Your task to perform on an android device: Open calendar and show me the second week of next month Image 0: 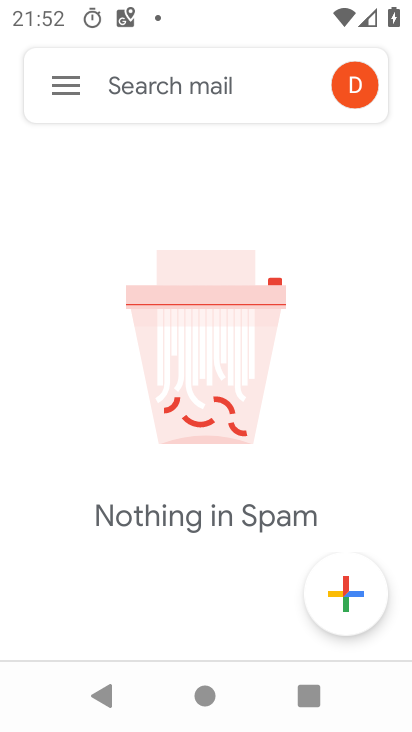
Step 0: press home button
Your task to perform on an android device: Open calendar and show me the second week of next month Image 1: 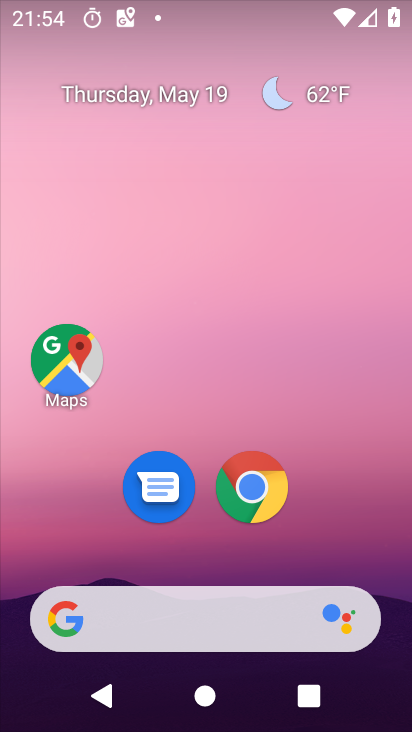
Step 1: click (178, 92)
Your task to perform on an android device: Open calendar and show me the second week of next month Image 2: 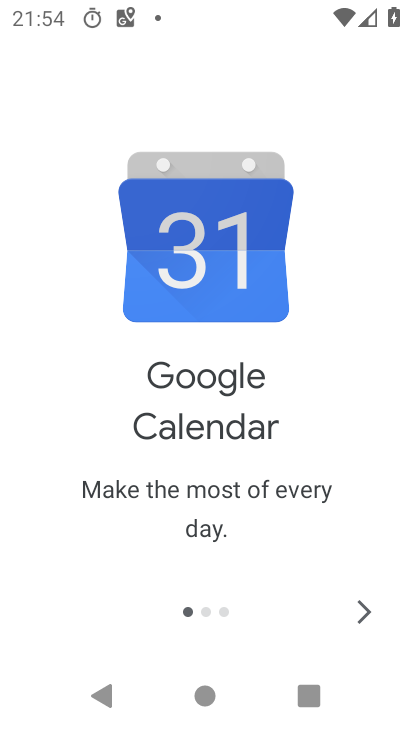
Step 2: click (371, 612)
Your task to perform on an android device: Open calendar and show me the second week of next month Image 3: 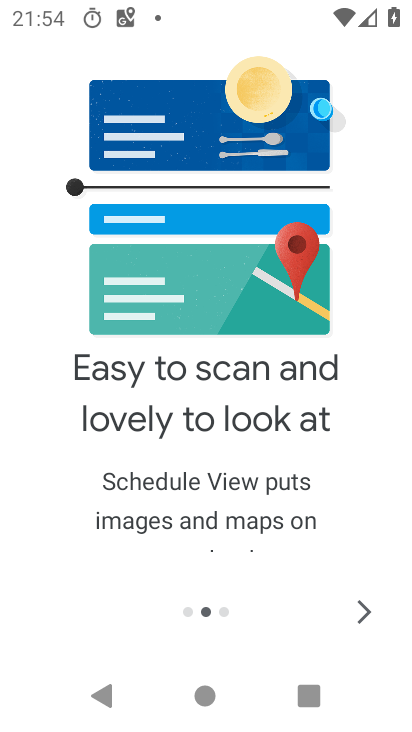
Step 3: click (371, 612)
Your task to perform on an android device: Open calendar and show me the second week of next month Image 4: 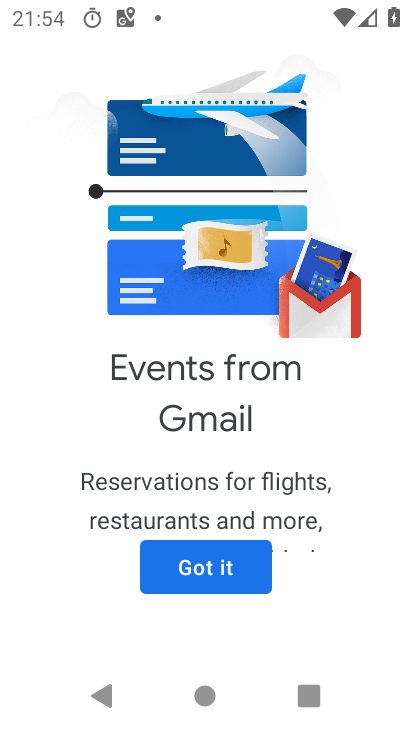
Step 4: click (249, 561)
Your task to perform on an android device: Open calendar and show me the second week of next month Image 5: 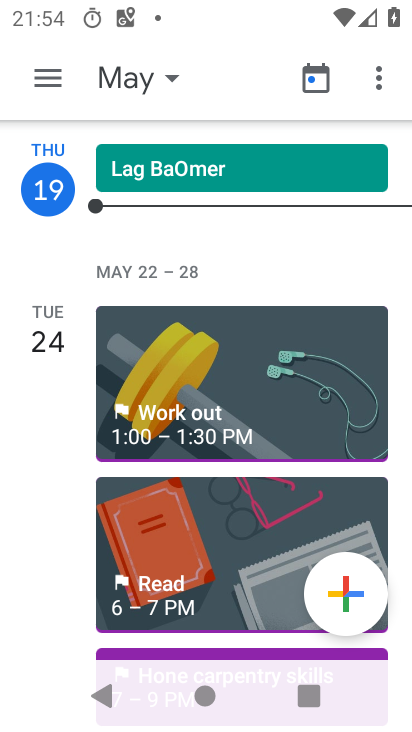
Step 5: click (58, 82)
Your task to perform on an android device: Open calendar and show me the second week of next month Image 6: 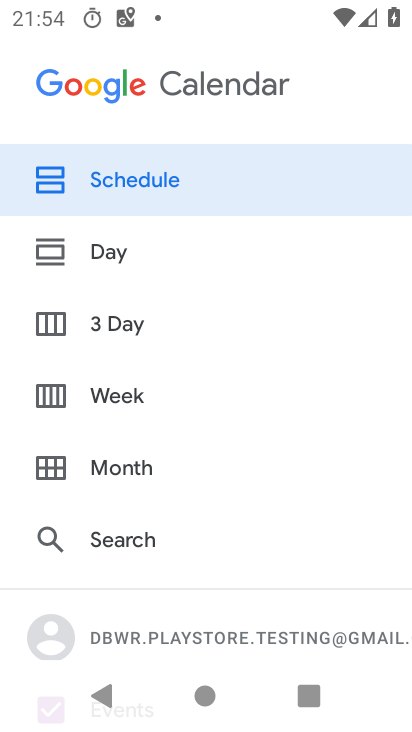
Step 6: click (119, 401)
Your task to perform on an android device: Open calendar and show me the second week of next month Image 7: 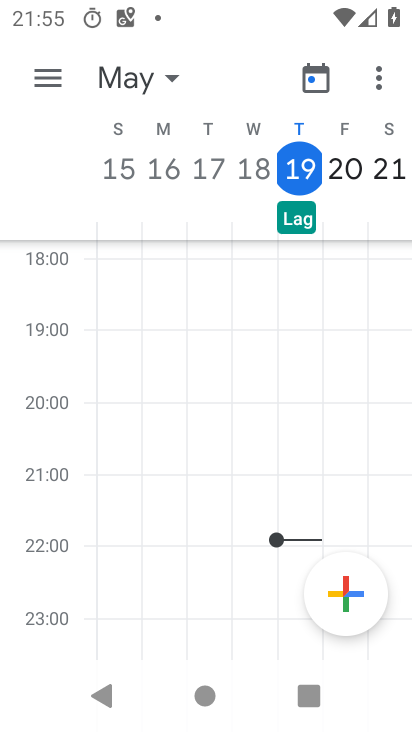
Step 7: click (167, 73)
Your task to perform on an android device: Open calendar and show me the second week of next month Image 8: 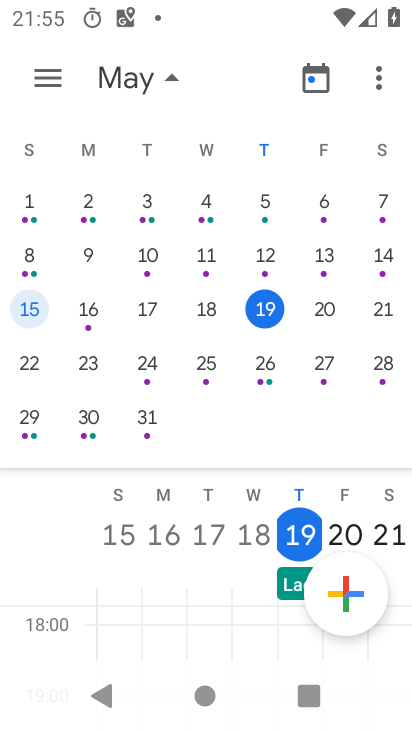
Step 8: drag from (383, 435) to (26, 430)
Your task to perform on an android device: Open calendar and show me the second week of next month Image 9: 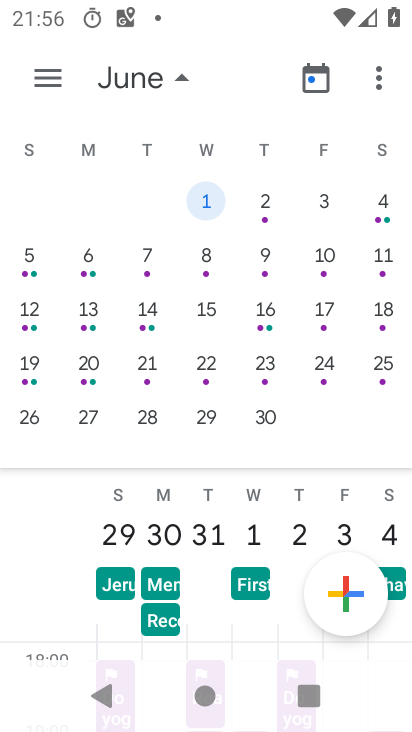
Step 9: click (208, 304)
Your task to perform on an android device: Open calendar and show me the second week of next month Image 10: 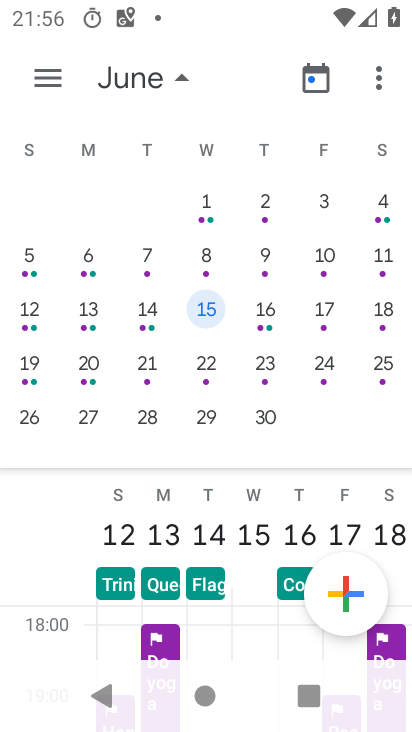
Step 10: task complete